Your task to perform on an android device: Open notification settings Image 0: 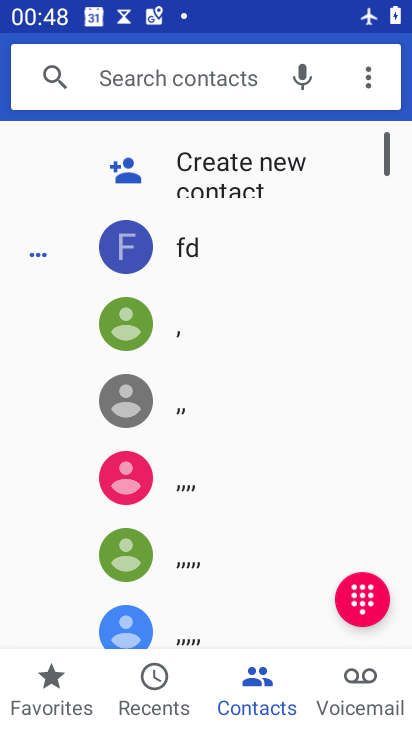
Step 0: press home button
Your task to perform on an android device: Open notification settings Image 1: 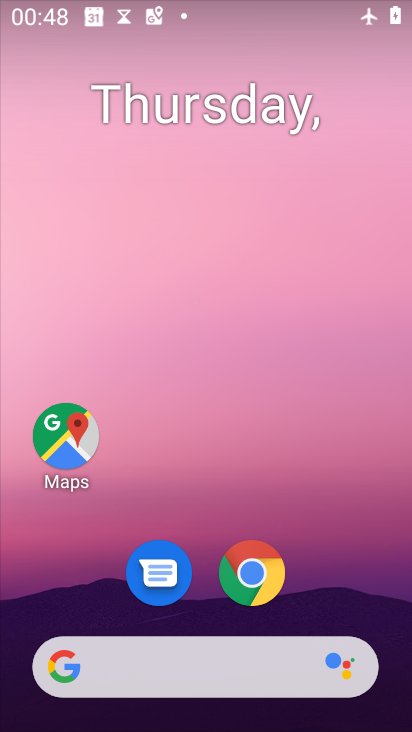
Step 1: drag from (227, 484) to (284, 280)
Your task to perform on an android device: Open notification settings Image 2: 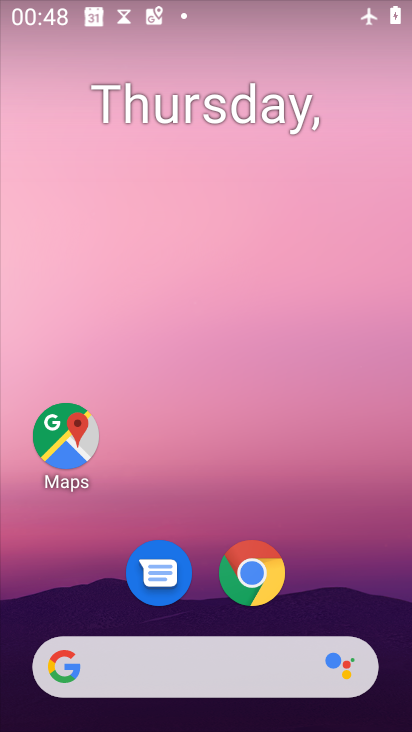
Step 2: drag from (348, 600) to (319, 290)
Your task to perform on an android device: Open notification settings Image 3: 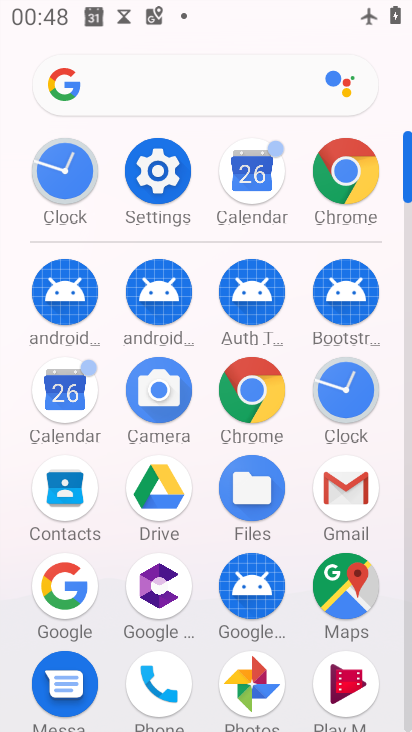
Step 3: click (159, 166)
Your task to perform on an android device: Open notification settings Image 4: 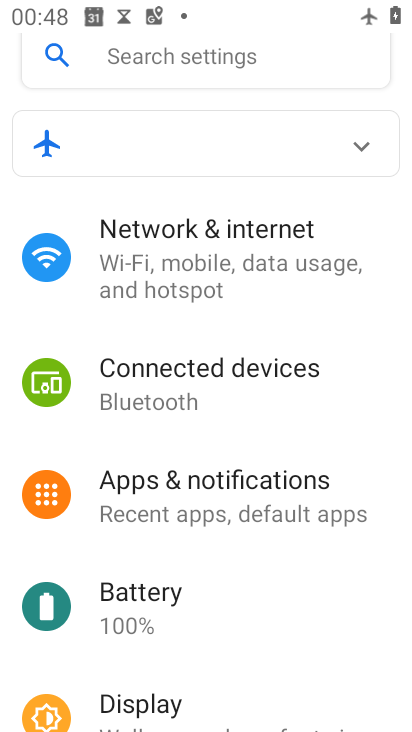
Step 4: click (131, 249)
Your task to perform on an android device: Open notification settings Image 5: 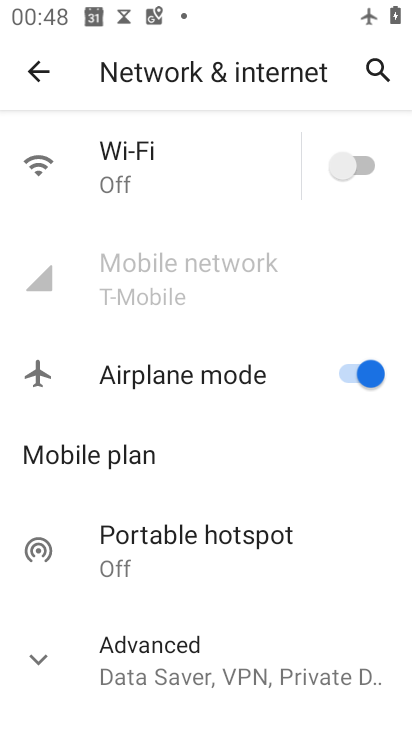
Step 5: click (41, 72)
Your task to perform on an android device: Open notification settings Image 6: 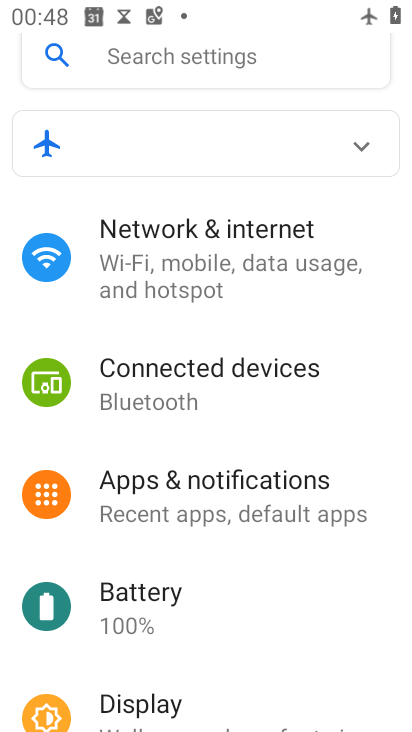
Step 6: click (242, 486)
Your task to perform on an android device: Open notification settings Image 7: 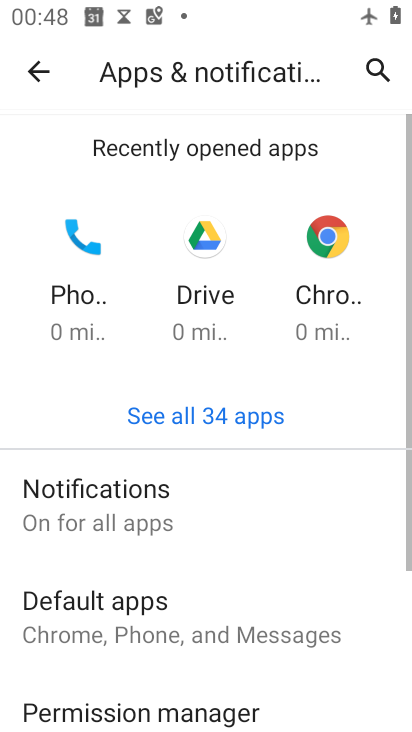
Step 7: click (145, 494)
Your task to perform on an android device: Open notification settings Image 8: 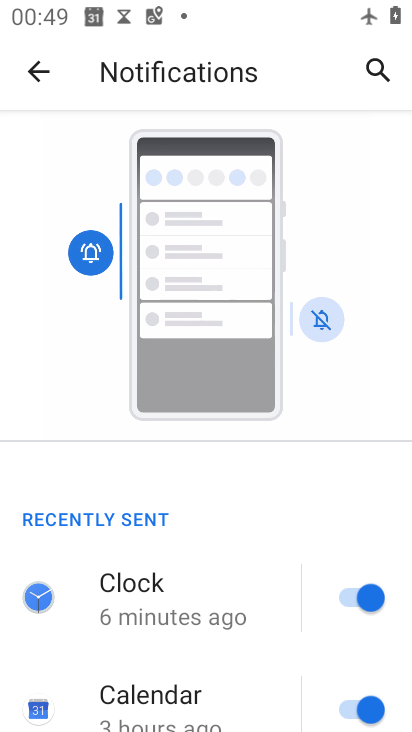
Step 8: task complete